Your task to perform on an android device: open app "DoorDash - Dasher" (install if not already installed) and enter user name: "resistor@inbox.com" and password: "cholera" Image 0: 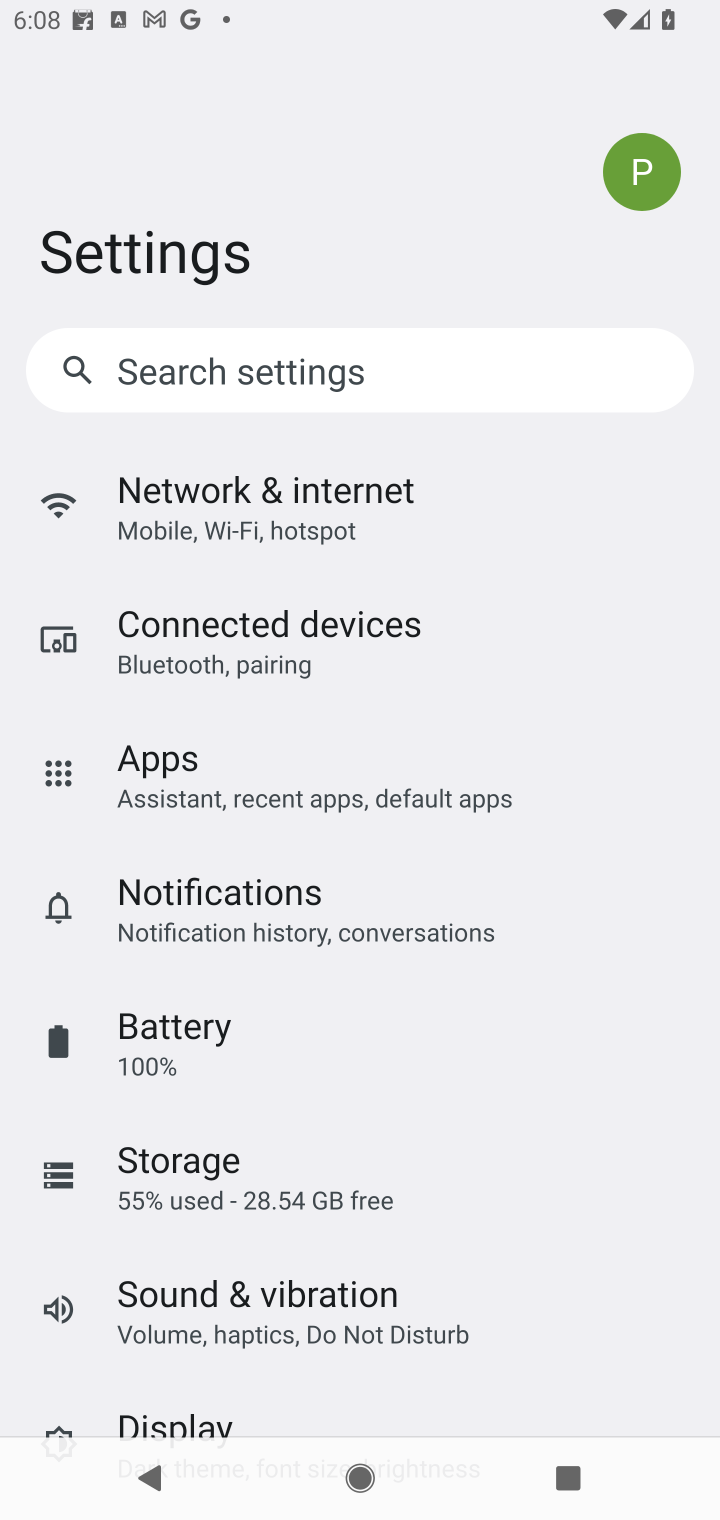
Step 0: press home button
Your task to perform on an android device: open app "DoorDash - Dasher" (install if not already installed) and enter user name: "resistor@inbox.com" and password: "cholera" Image 1: 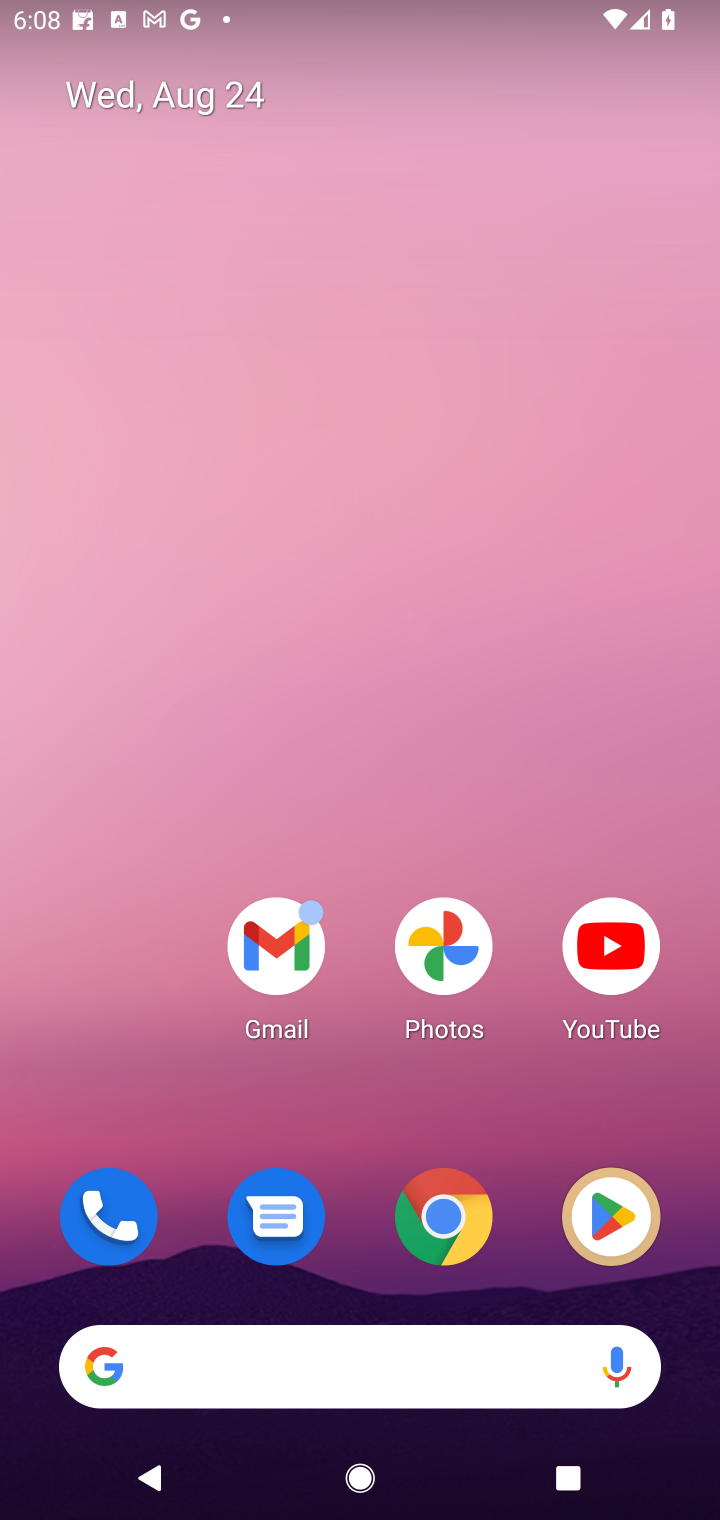
Step 1: click (628, 1204)
Your task to perform on an android device: open app "DoorDash - Dasher" (install if not already installed) and enter user name: "resistor@inbox.com" and password: "cholera" Image 2: 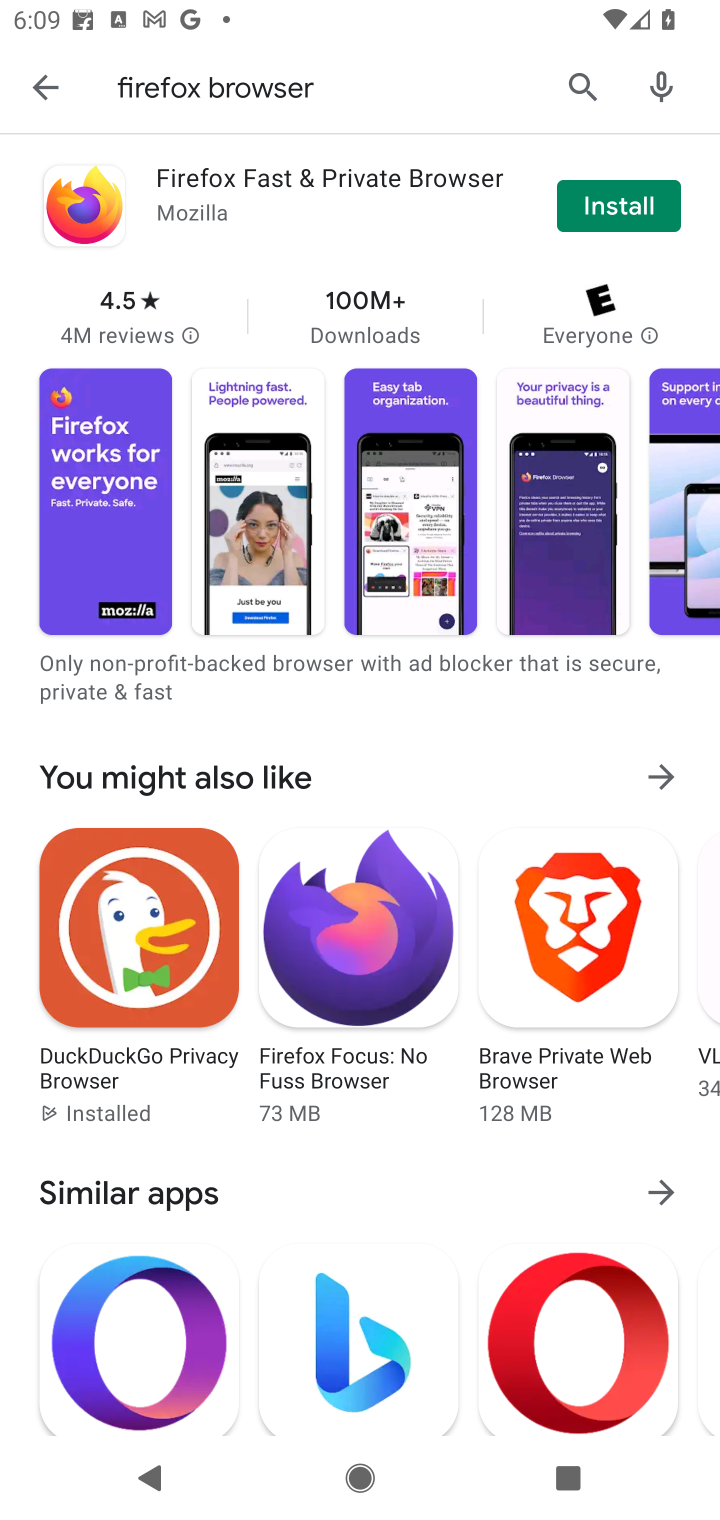
Step 2: click (579, 73)
Your task to perform on an android device: open app "DoorDash - Dasher" (install if not already installed) and enter user name: "resistor@inbox.com" and password: "cholera" Image 3: 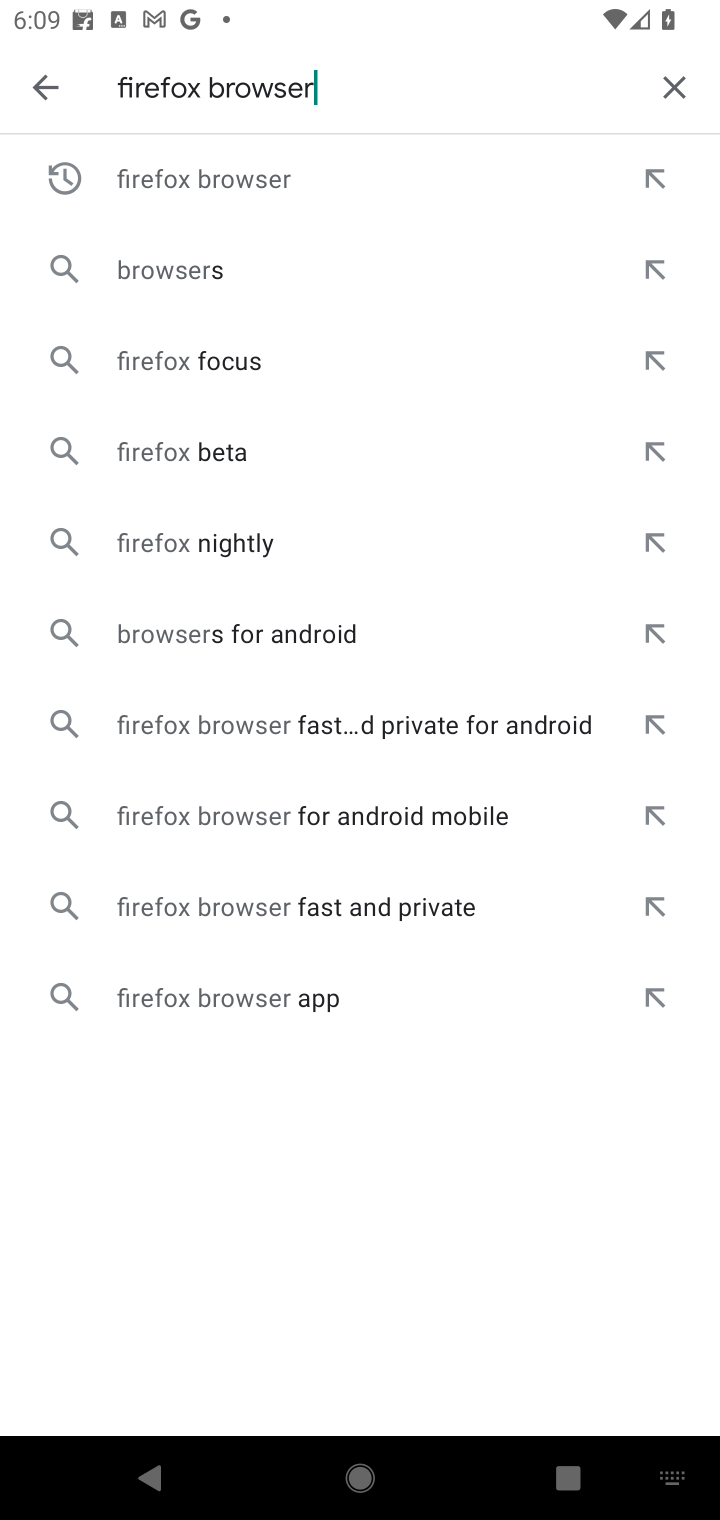
Step 3: click (256, 176)
Your task to perform on an android device: open app "DoorDash - Dasher" (install if not already installed) and enter user name: "resistor@inbox.com" and password: "cholera" Image 4: 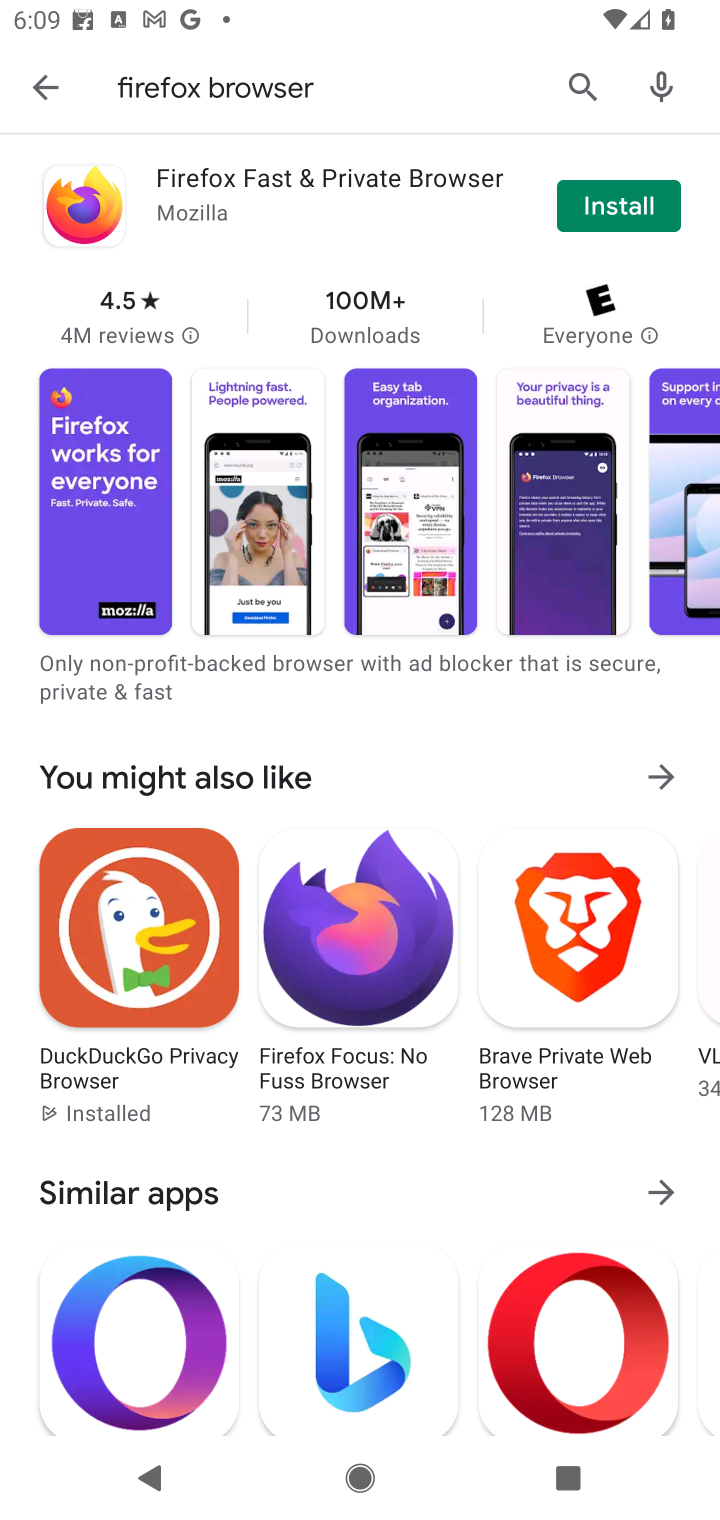
Step 4: click (576, 65)
Your task to perform on an android device: open app "DoorDash - Dasher" (install if not already installed) and enter user name: "resistor@inbox.com" and password: "cholera" Image 5: 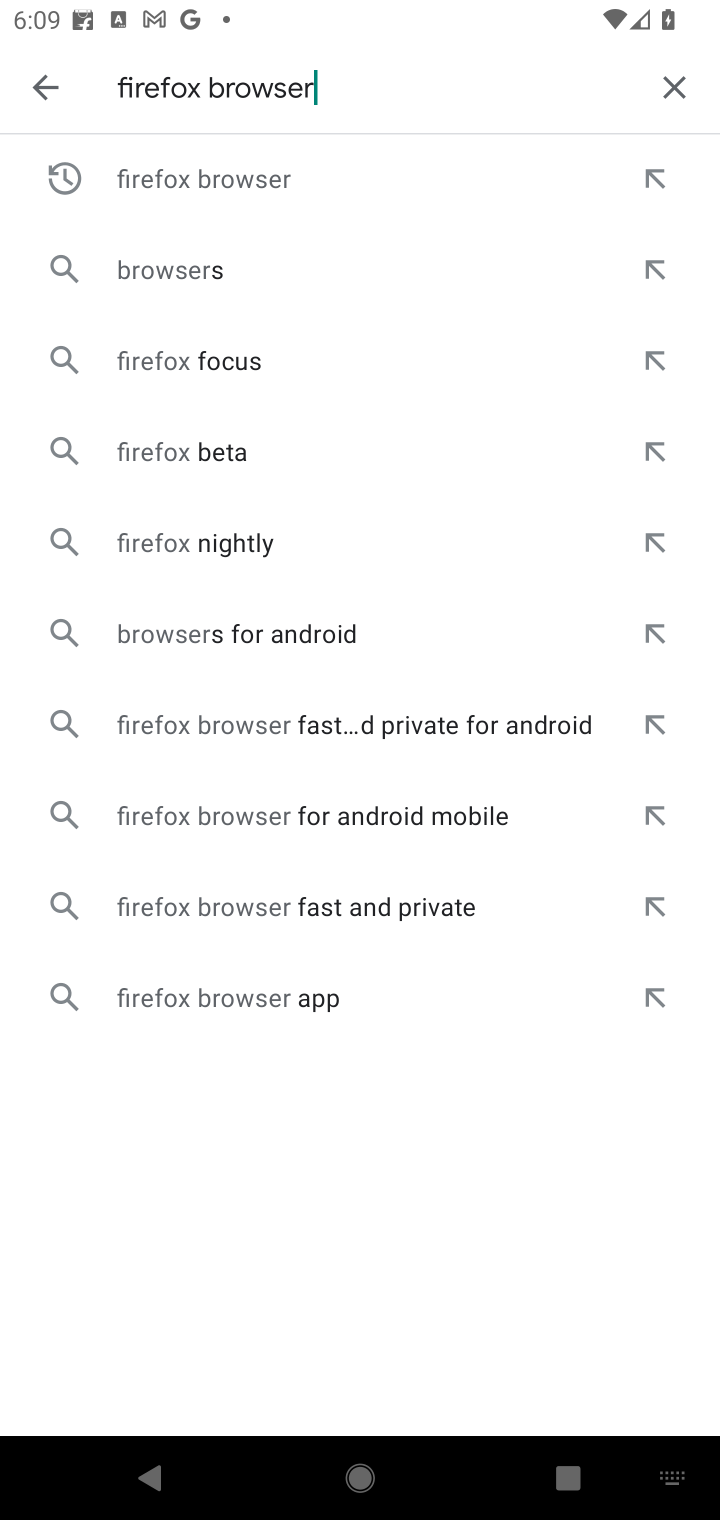
Step 5: click (672, 100)
Your task to perform on an android device: open app "DoorDash - Dasher" (install if not already installed) and enter user name: "resistor@inbox.com" and password: "cholera" Image 6: 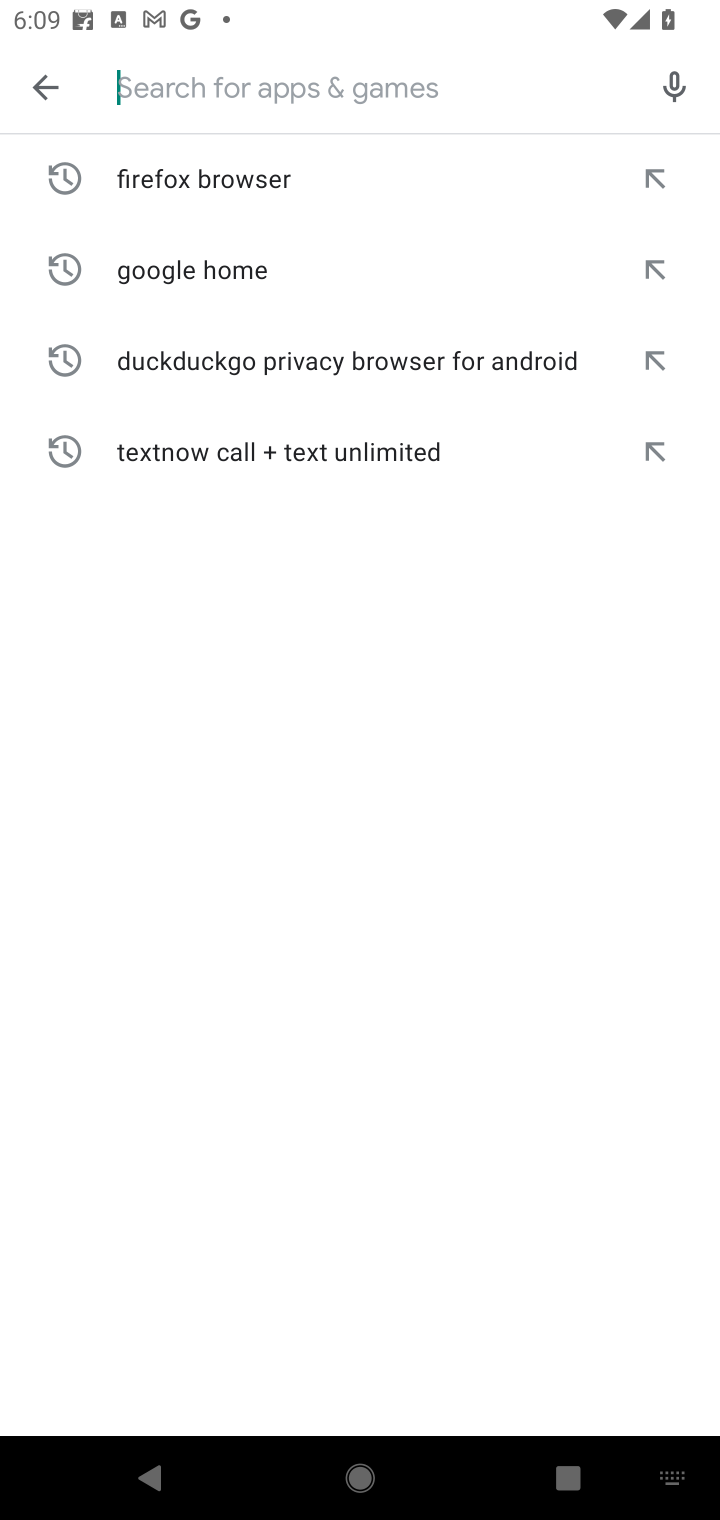
Step 6: type "DoorDash - Dasher"
Your task to perform on an android device: open app "DoorDash - Dasher" (install if not already installed) and enter user name: "resistor@inbox.com" and password: "cholera" Image 7: 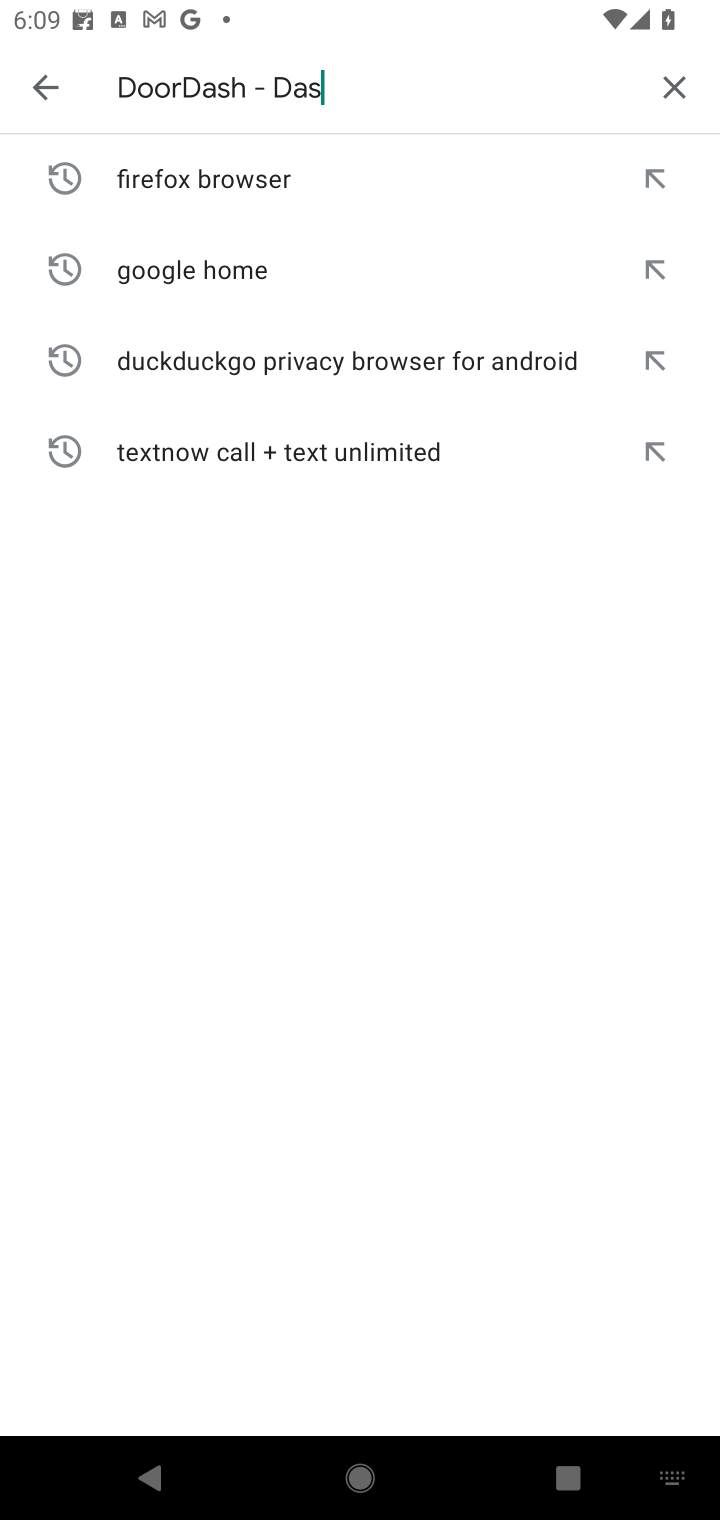
Step 7: type ""
Your task to perform on an android device: open app "DoorDash - Dasher" (install if not already installed) and enter user name: "resistor@inbox.com" and password: "cholera" Image 8: 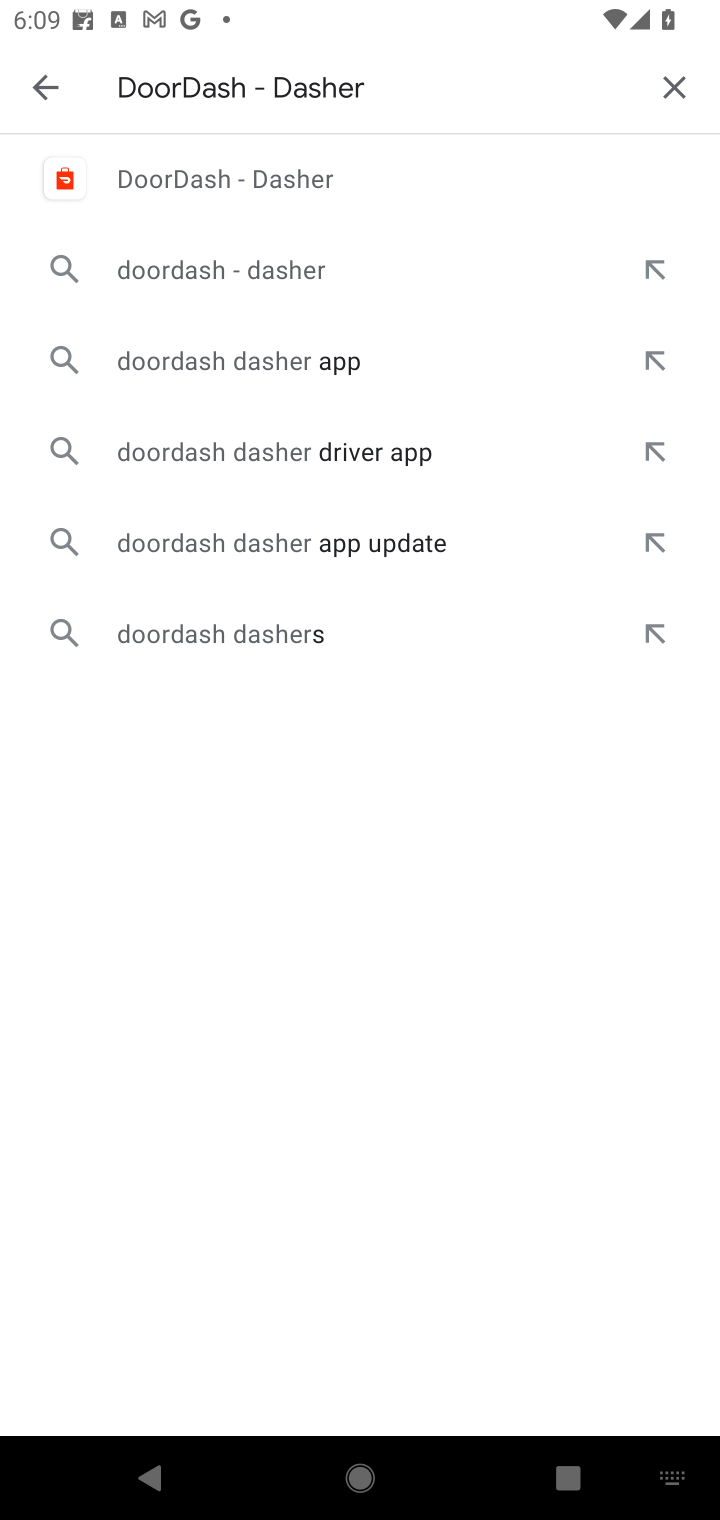
Step 8: click (300, 194)
Your task to perform on an android device: open app "DoorDash - Dasher" (install if not already installed) and enter user name: "resistor@inbox.com" and password: "cholera" Image 9: 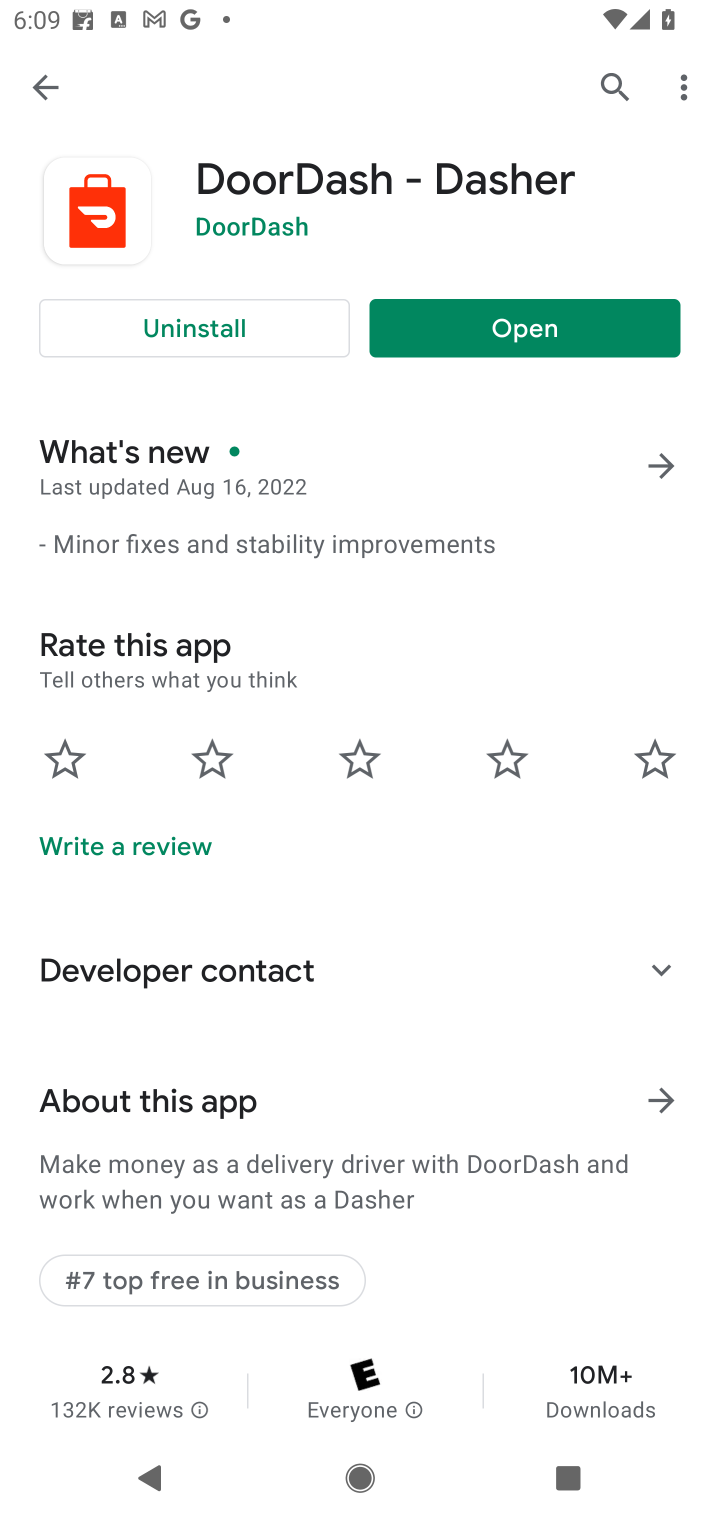
Step 9: click (521, 326)
Your task to perform on an android device: open app "DoorDash - Dasher" (install if not already installed) and enter user name: "resistor@inbox.com" and password: "cholera" Image 10: 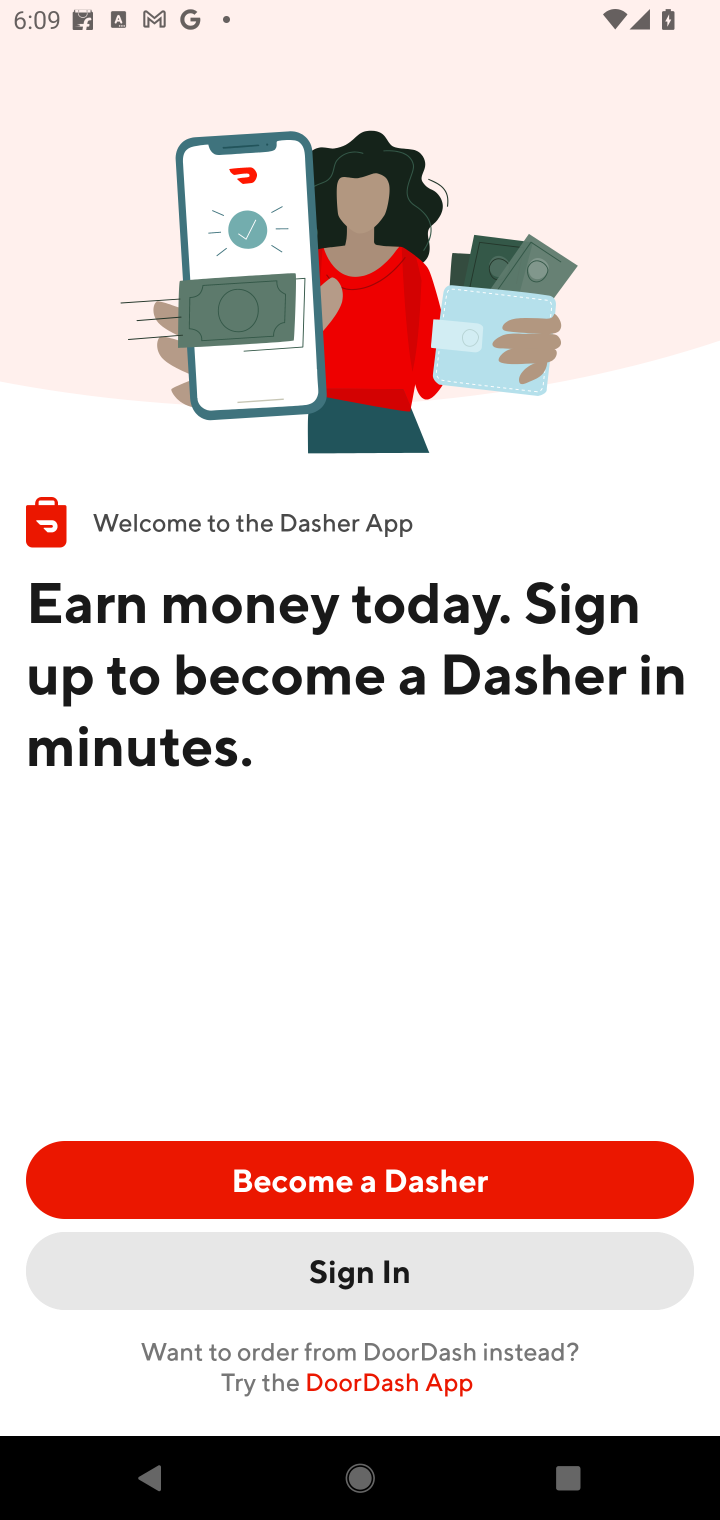
Step 10: task complete